Your task to perform on an android device: Clear the shopping cart on newegg.com. Search for "sony triple a" on newegg.com, select the first entry, and add it to the cart. Image 0: 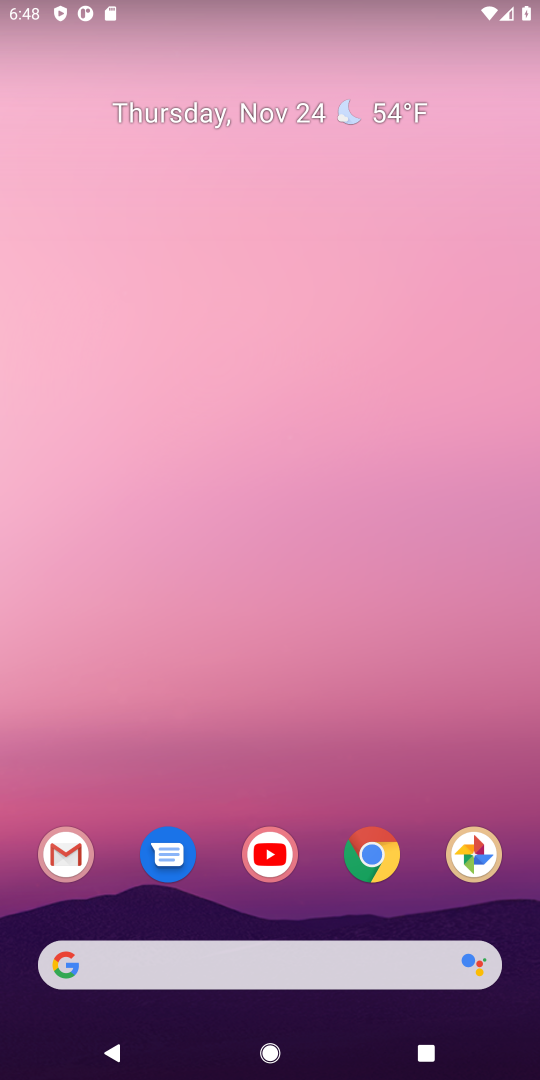
Step 0: click (368, 859)
Your task to perform on an android device: Clear the shopping cart on newegg.com. Search for "sony triple a" on newegg.com, select the first entry, and add it to the cart. Image 1: 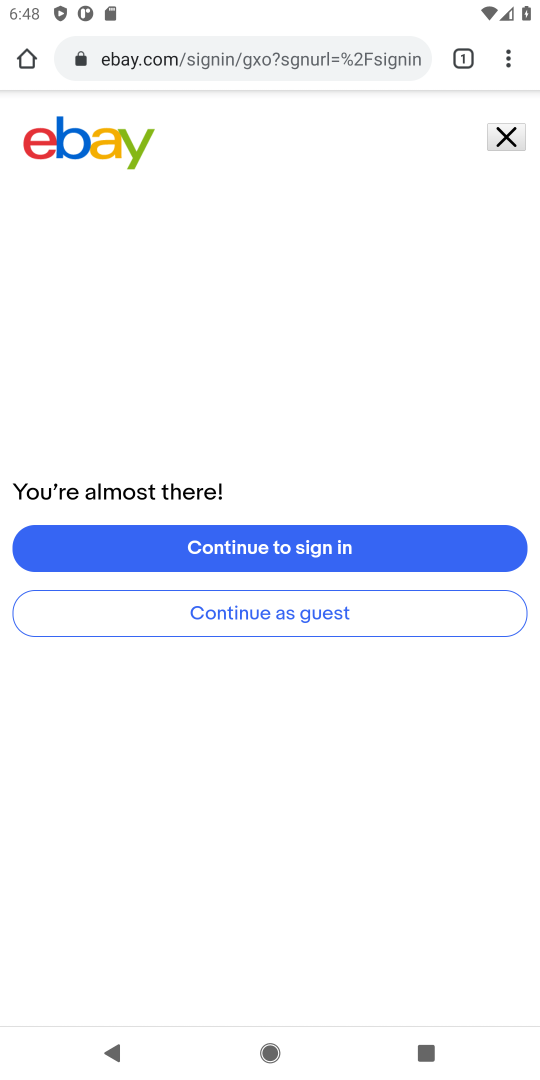
Step 1: click (209, 52)
Your task to perform on an android device: Clear the shopping cart on newegg.com. Search for "sony triple a" on newegg.com, select the first entry, and add it to the cart. Image 2: 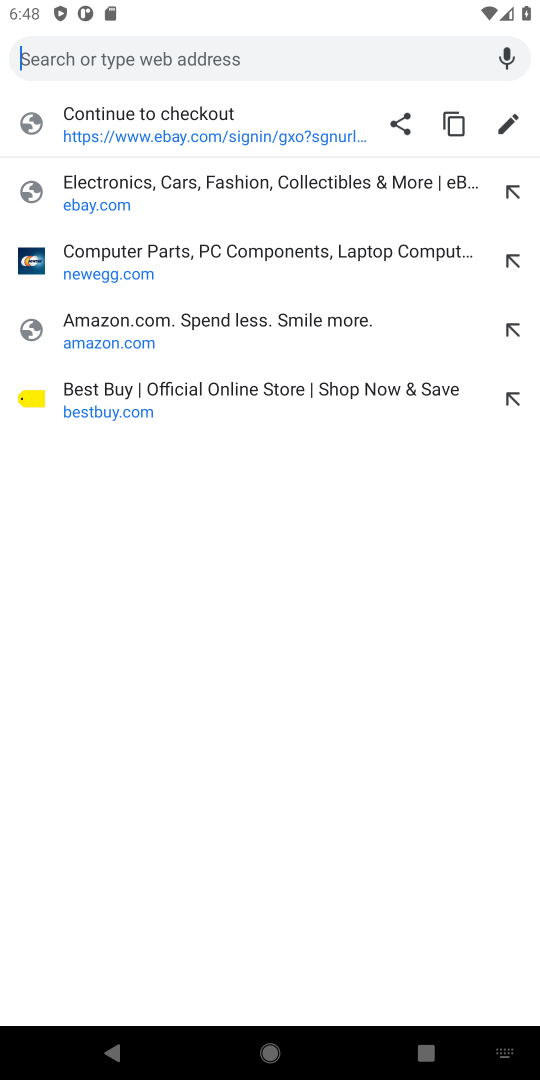
Step 2: click (97, 264)
Your task to perform on an android device: Clear the shopping cart on newegg.com. Search for "sony triple a" on newegg.com, select the first entry, and add it to the cart. Image 3: 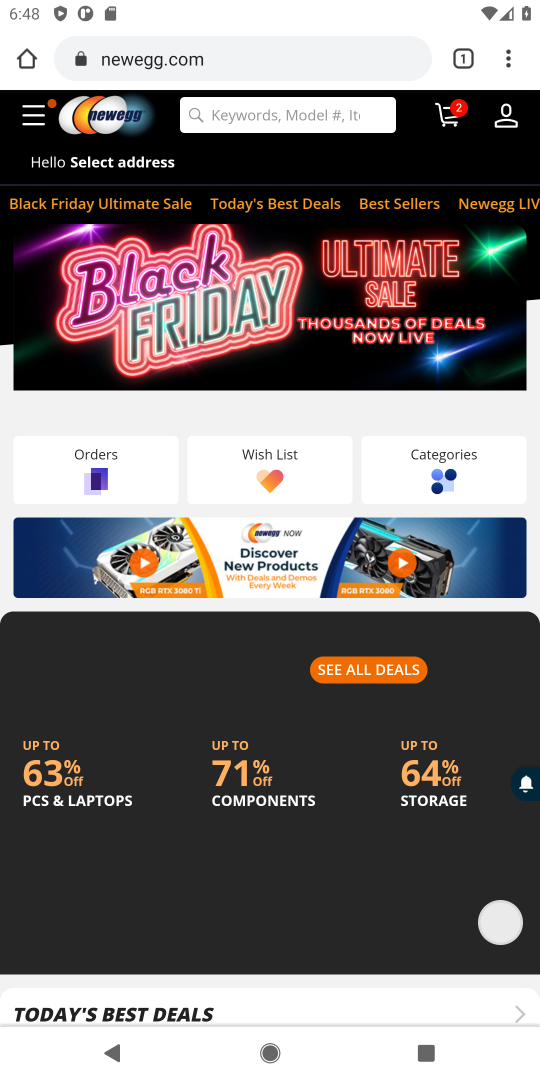
Step 3: click (454, 116)
Your task to perform on an android device: Clear the shopping cart on newegg.com. Search for "sony triple a" on newegg.com, select the first entry, and add it to the cart. Image 4: 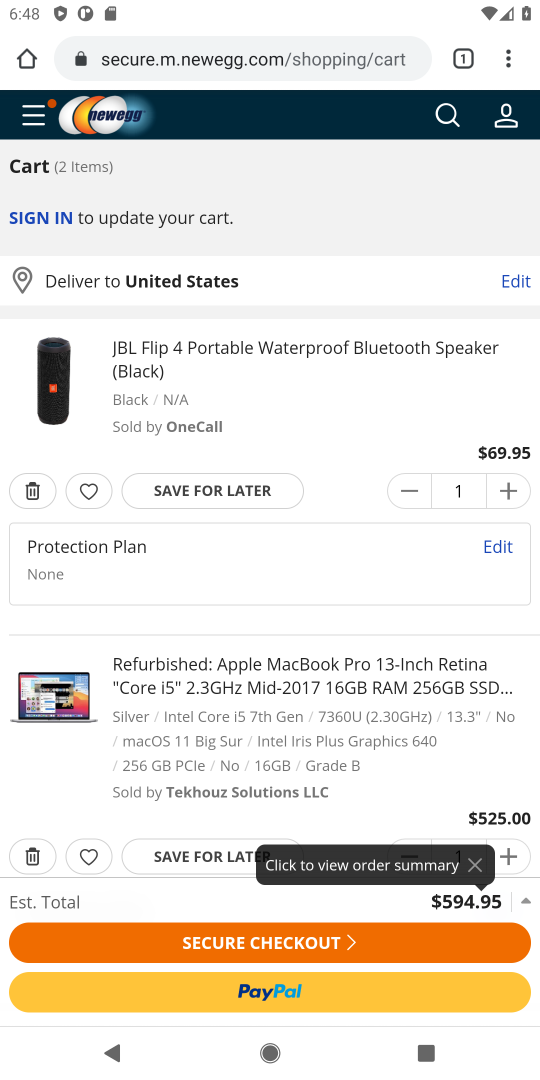
Step 4: click (32, 493)
Your task to perform on an android device: Clear the shopping cart on newegg.com. Search for "sony triple a" on newegg.com, select the first entry, and add it to the cart. Image 5: 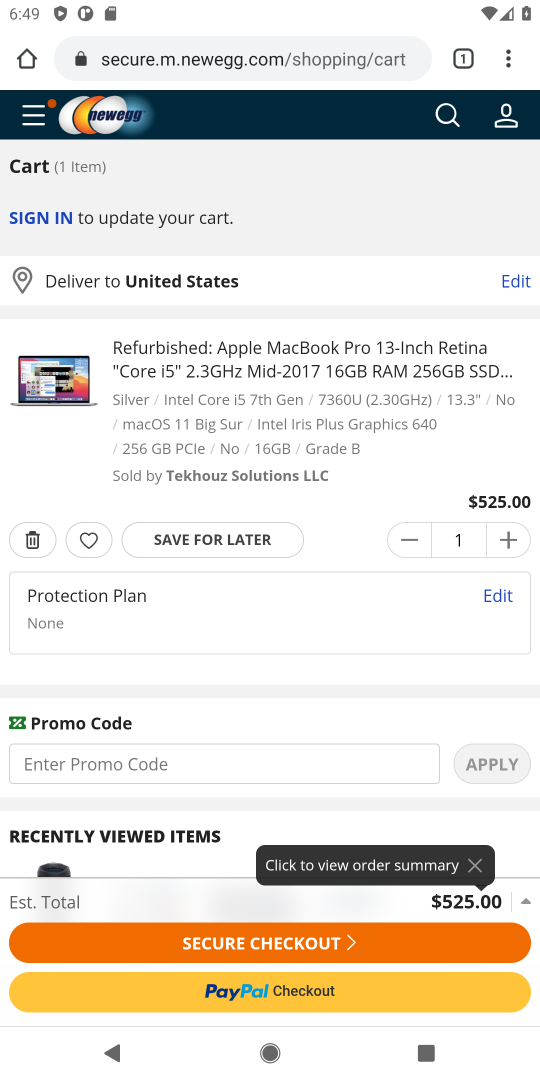
Step 5: click (28, 532)
Your task to perform on an android device: Clear the shopping cart on newegg.com. Search for "sony triple a" on newegg.com, select the first entry, and add it to the cart. Image 6: 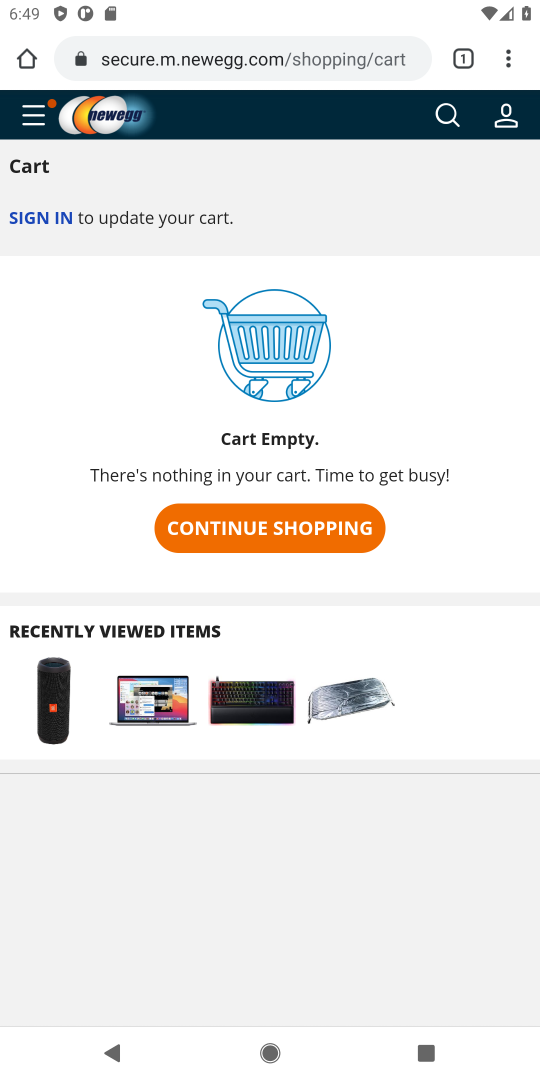
Step 6: click (453, 131)
Your task to perform on an android device: Clear the shopping cart on newegg.com. Search for "sony triple a" on newegg.com, select the first entry, and add it to the cart. Image 7: 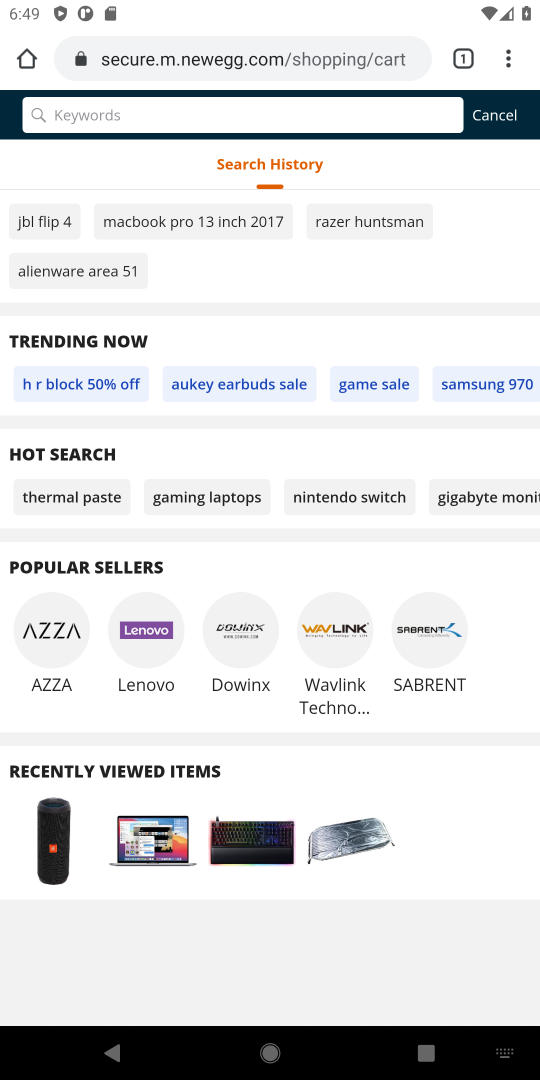
Step 7: type "sony triple a"
Your task to perform on an android device: Clear the shopping cart on newegg.com. Search for "sony triple a" on newegg.com, select the first entry, and add it to the cart. Image 8: 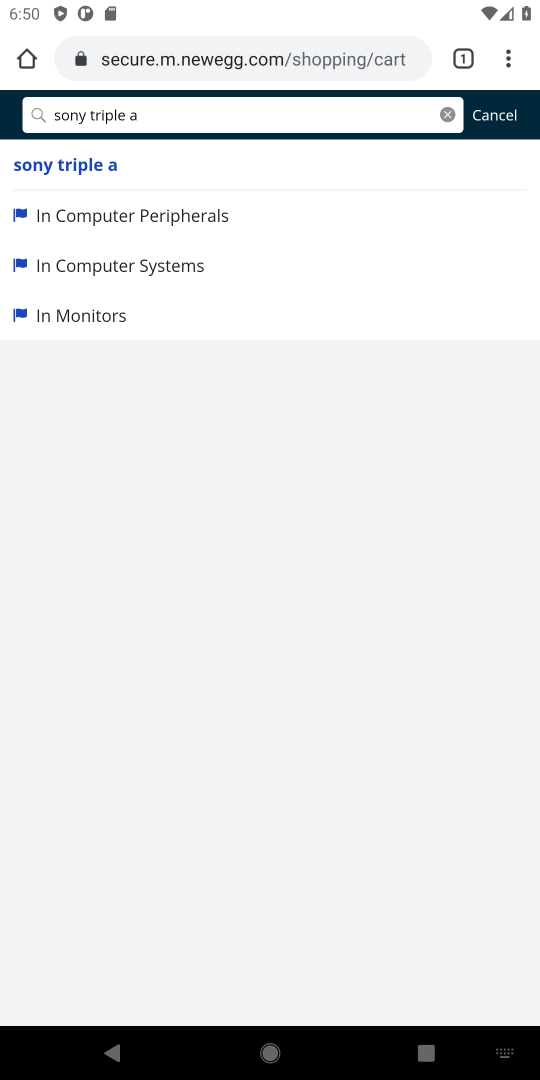
Step 8: click (54, 171)
Your task to perform on an android device: Clear the shopping cart on newegg.com. Search for "sony triple a" on newegg.com, select the first entry, and add it to the cart. Image 9: 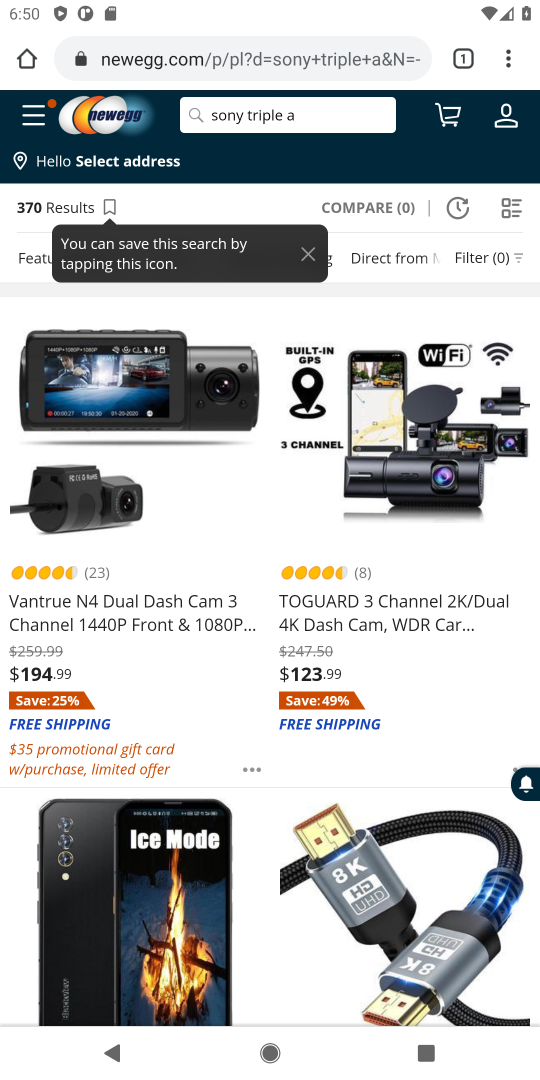
Step 9: task complete